Your task to perform on an android device: Go to CNN.com Image 0: 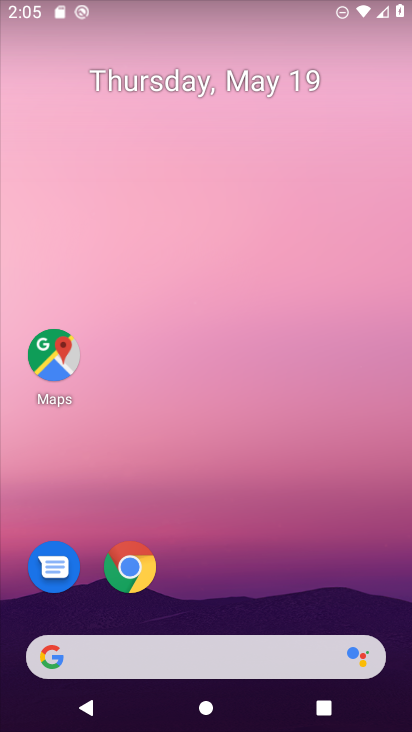
Step 0: click (231, 652)
Your task to perform on an android device: Go to CNN.com Image 1: 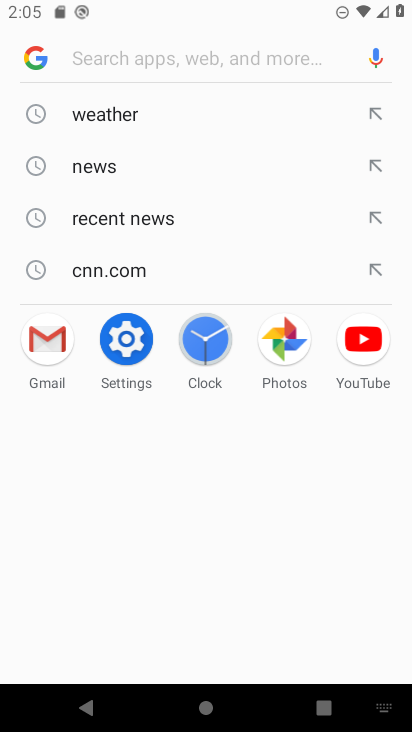
Step 1: click (116, 260)
Your task to perform on an android device: Go to CNN.com Image 2: 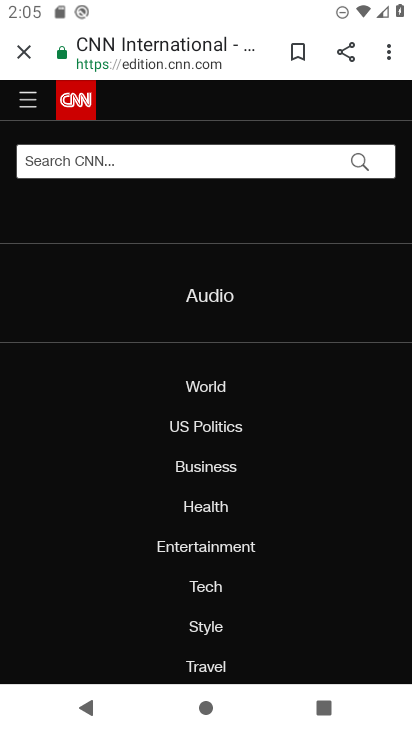
Step 2: task complete